Your task to perform on an android device: turn off picture-in-picture Image 0: 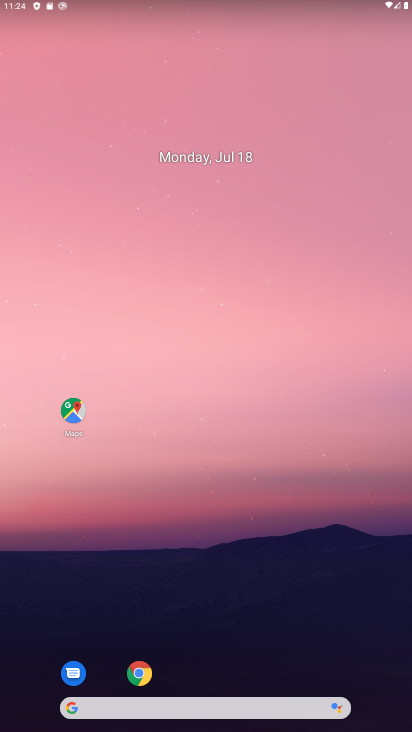
Step 0: click (139, 681)
Your task to perform on an android device: turn off picture-in-picture Image 1: 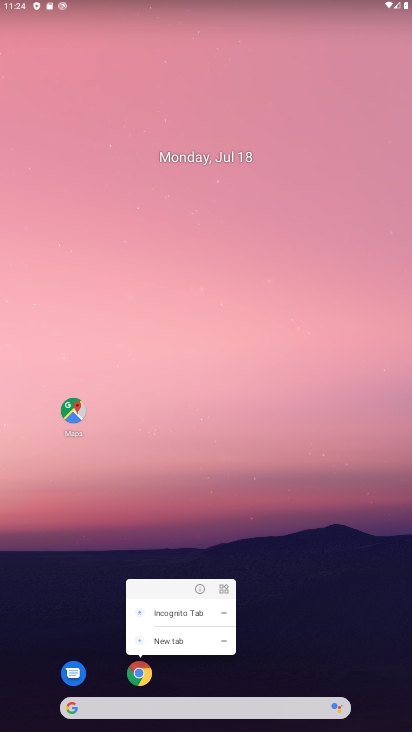
Step 1: click (199, 586)
Your task to perform on an android device: turn off picture-in-picture Image 2: 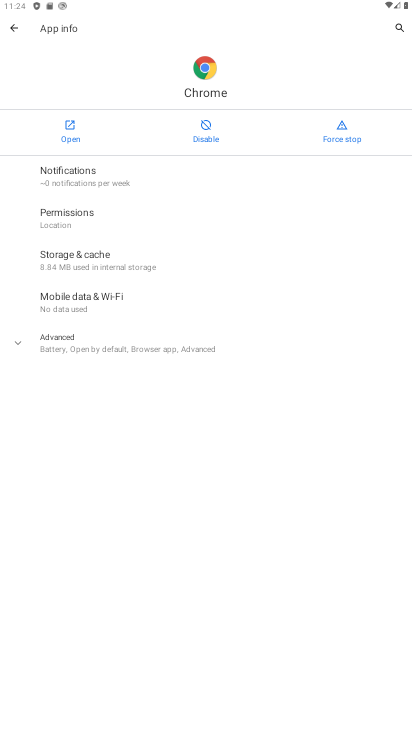
Step 2: click (176, 340)
Your task to perform on an android device: turn off picture-in-picture Image 3: 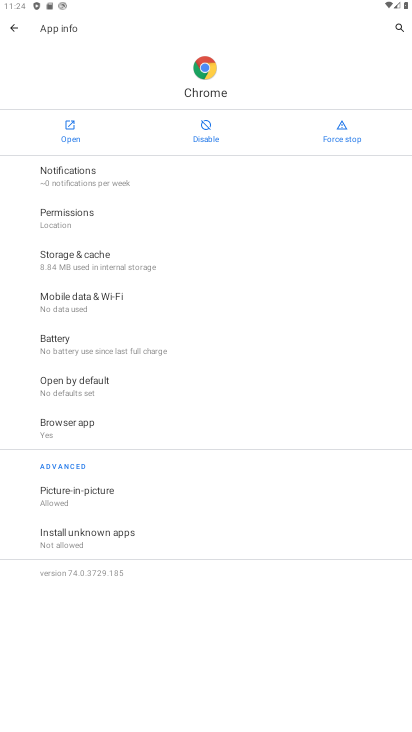
Step 3: click (131, 498)
Your task to perform on an android device: turn off picture-in-picture Image 4: 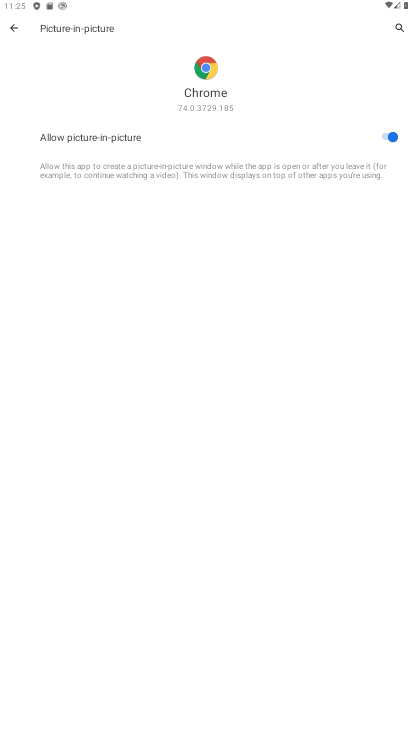
Step 4: click (395, 141)
Your task to perform on an android device: turn off picture-in-picture Image 5: 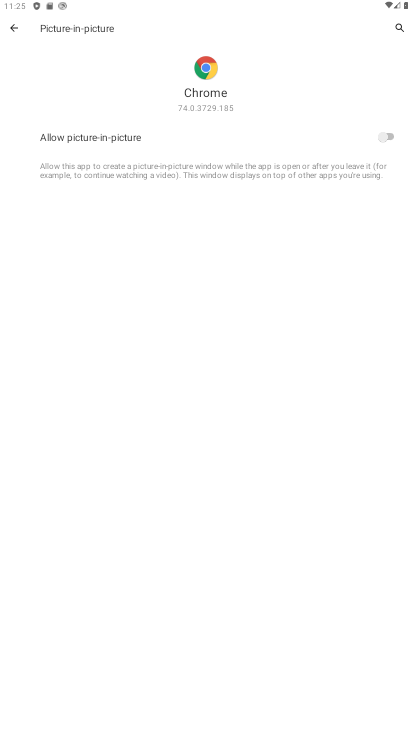
Step 5: task complete